Your task to perform on an android device: Open Wikipedia Image 0: 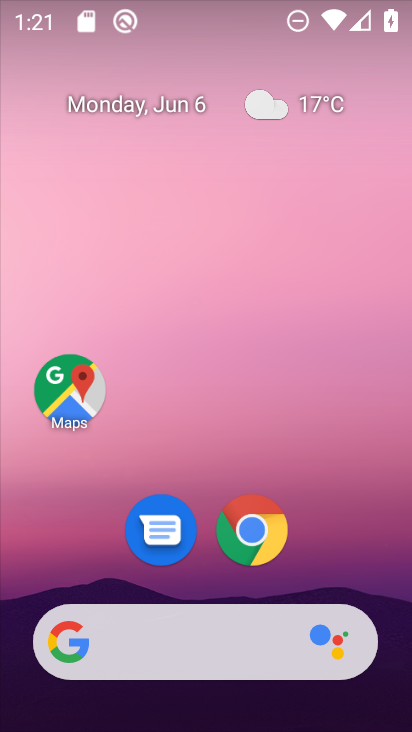
Step 0: click (251, 528)
Your task to perform on an android device: Open Wikipedia Image 1: 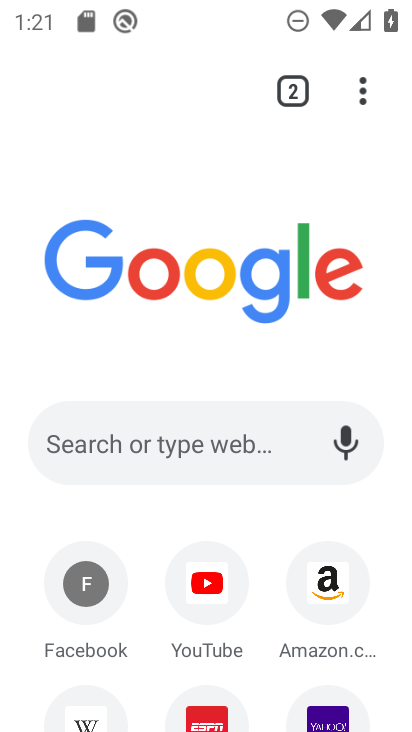
Step 1: drag from (264, 535) to (310, 326)
Your task to perform on an android device: Open Wikipedia Image 2: 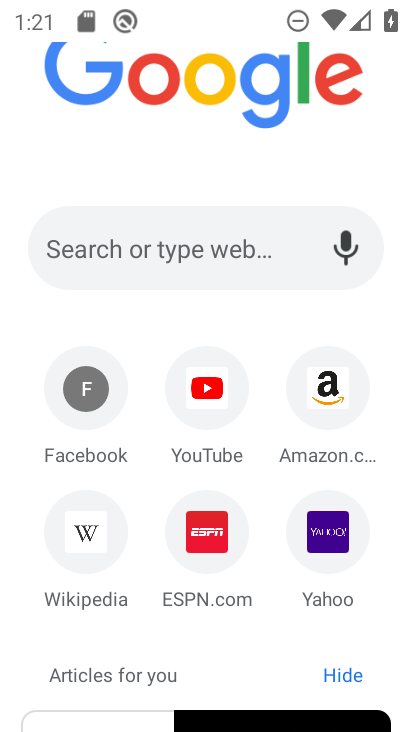
Step 2: click (84, 537)
Your task to perform on an android device: Open Wikipedia Image 3: 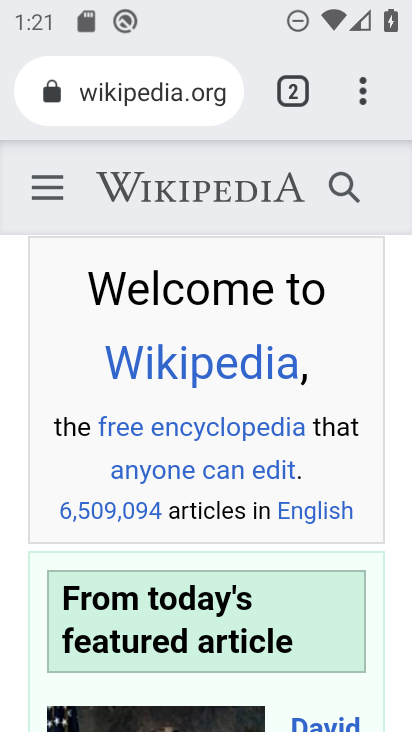
Step 3: task complete